Your task to perform on an android device: Search for vegetarian restaurants on Maps Image 0: 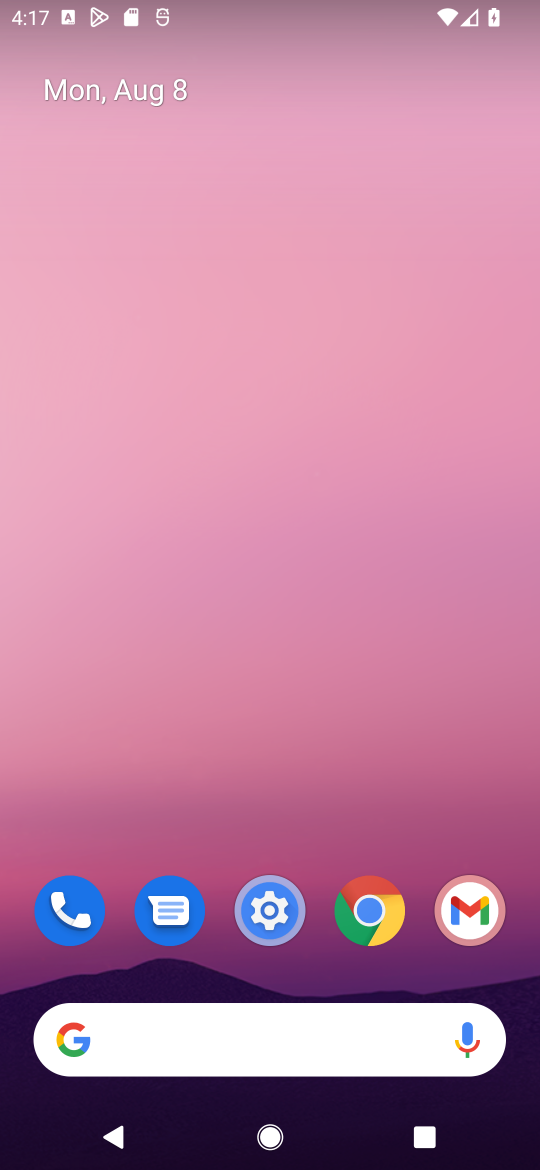
Step 0: drag from (289, 821) to (258, 109)
Your task to perform on an android device: Search for vegetarian restaurants on Maps Image 1: 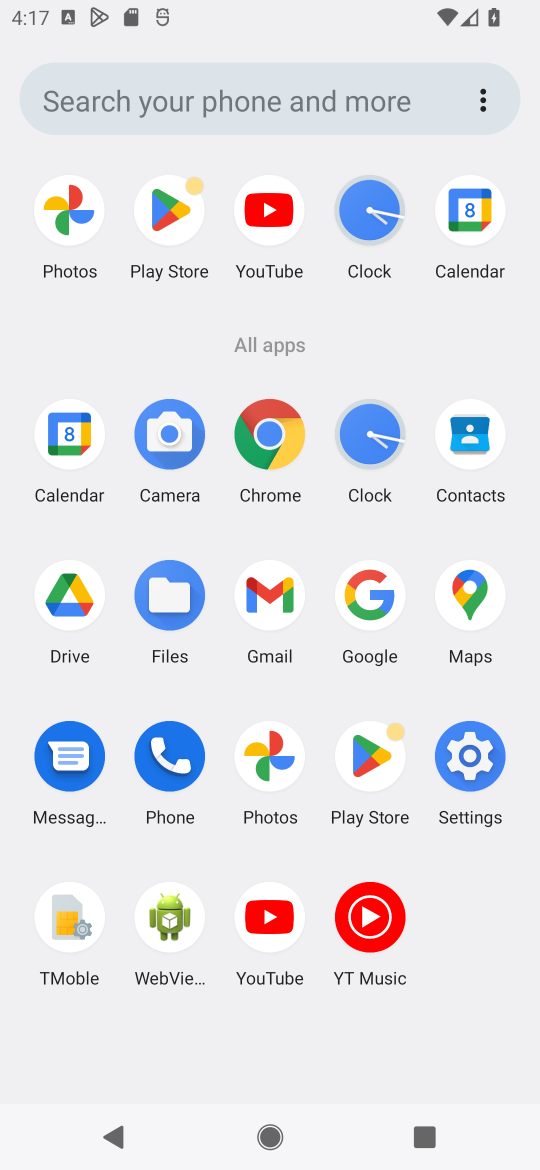
Step 1: click (462, 591)
Your task to perform on an android device: Search for vegetarian restaurants on Maps Image 2: 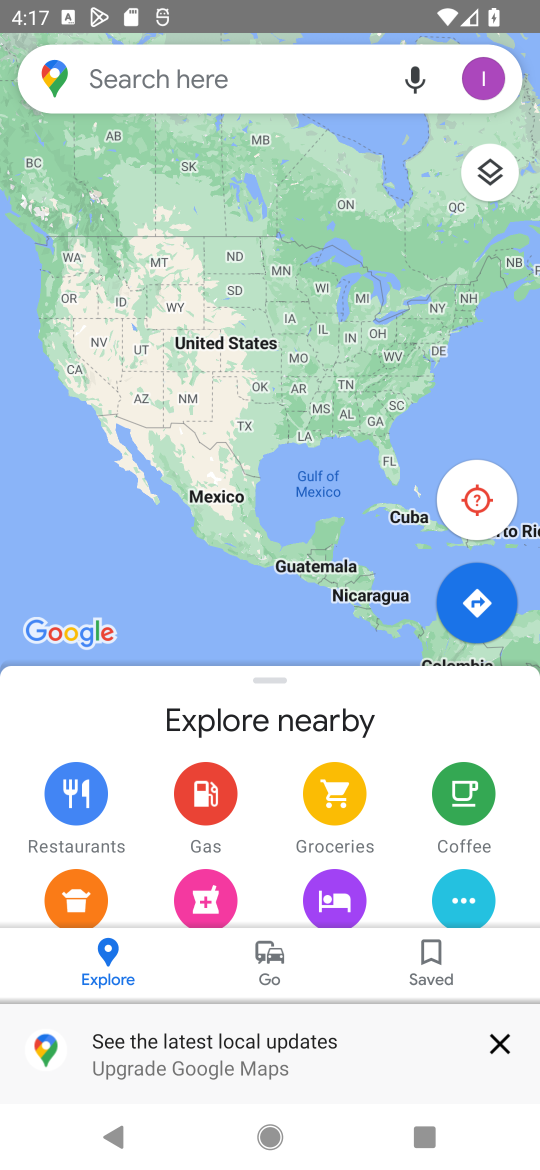
Step 2: click (196, 82)
Your task to perform on an android device: Search for vegetarian restaurants on Maps Image 3: 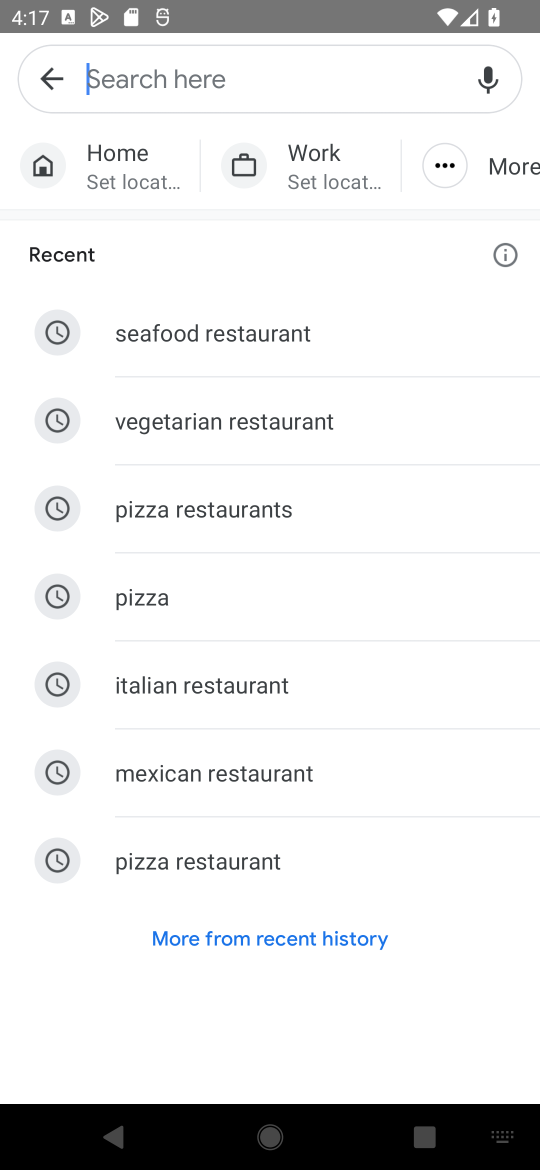
Step 3: click (143, 424)
Your task to perform on an android device: Search for vegetarian restaurants on Maps Image 4: 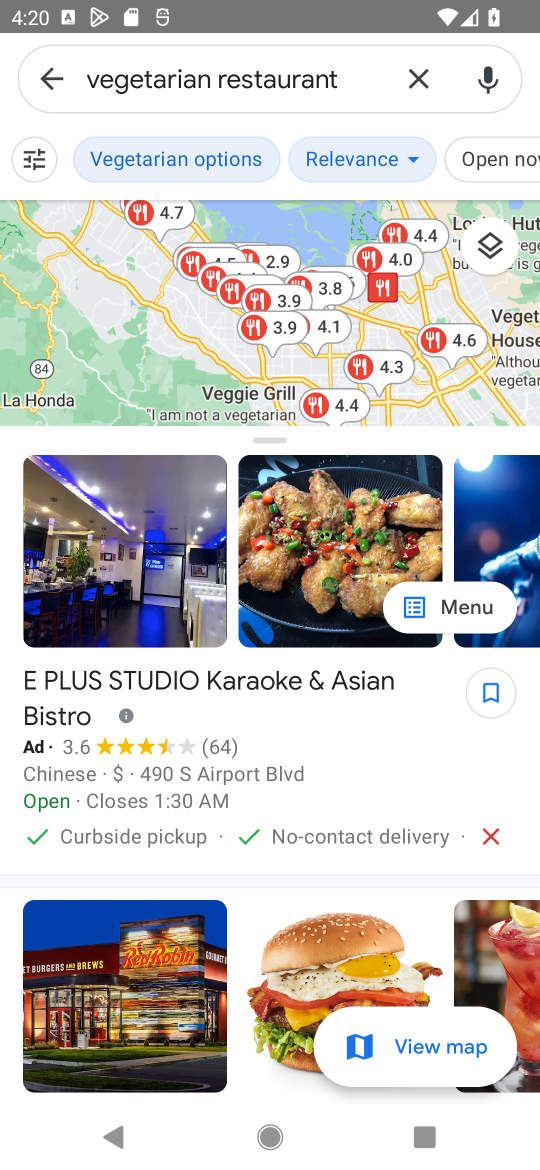
Step 4: task complete